Your task to perform on an android device: Go to network settings Image 0: 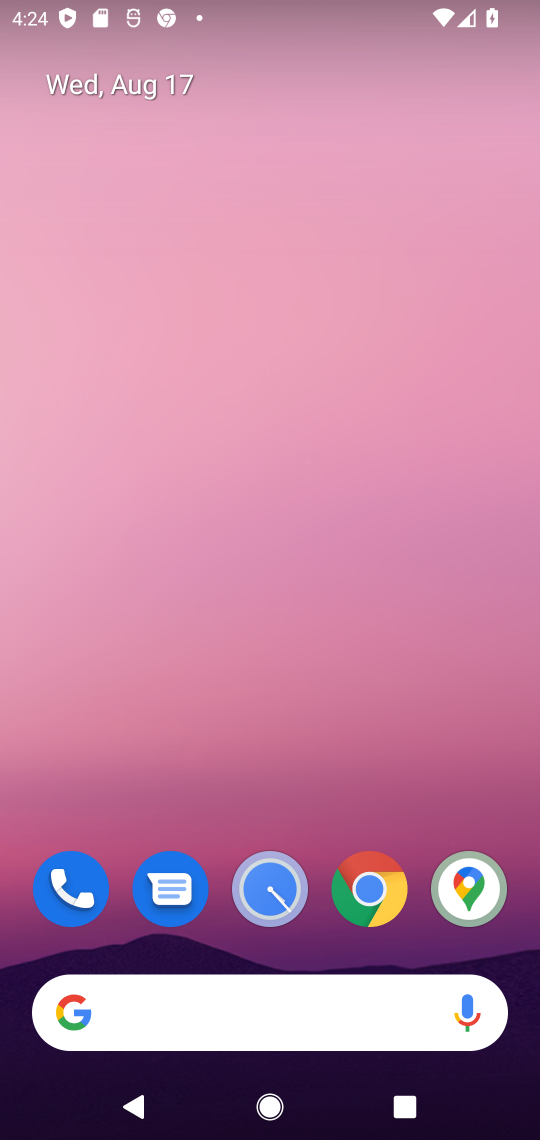
Step 0: drag from (311, 803) to (311, 100)
Your task to perform on an android device: Go to network settings Image 1: 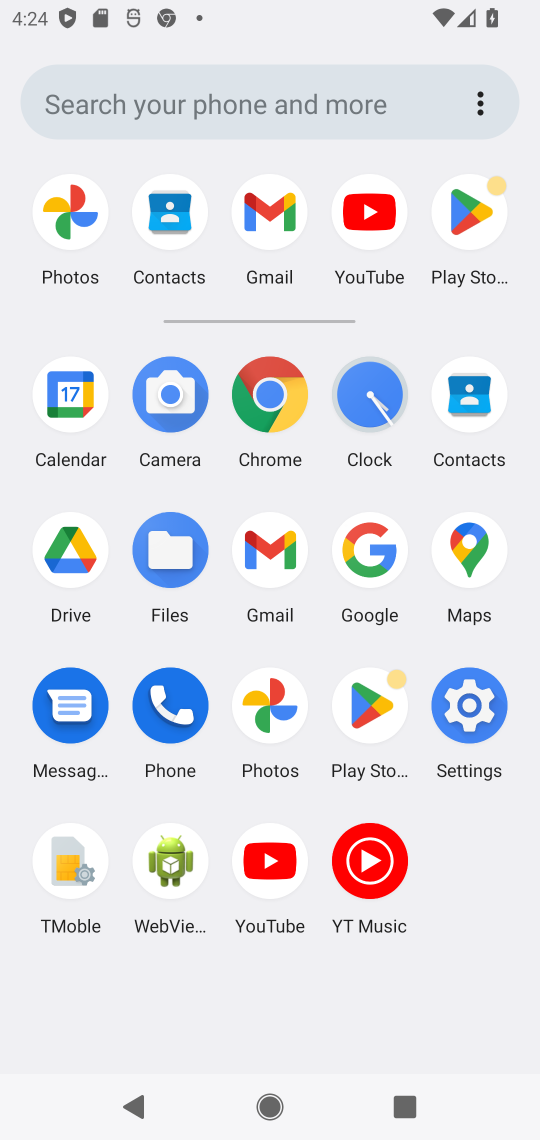
Step 1: click (483, 704)
Your task to perform on an android device: Go to network settings Image 2: 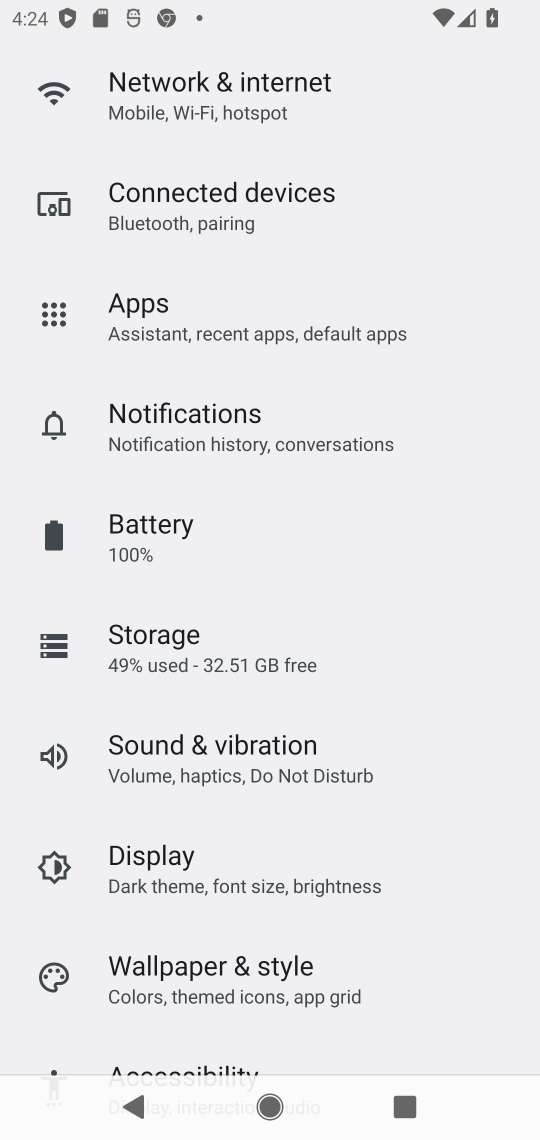
Step 2: click (179, 87)
Your task to perform on an android device: Go to network settings Image 3: 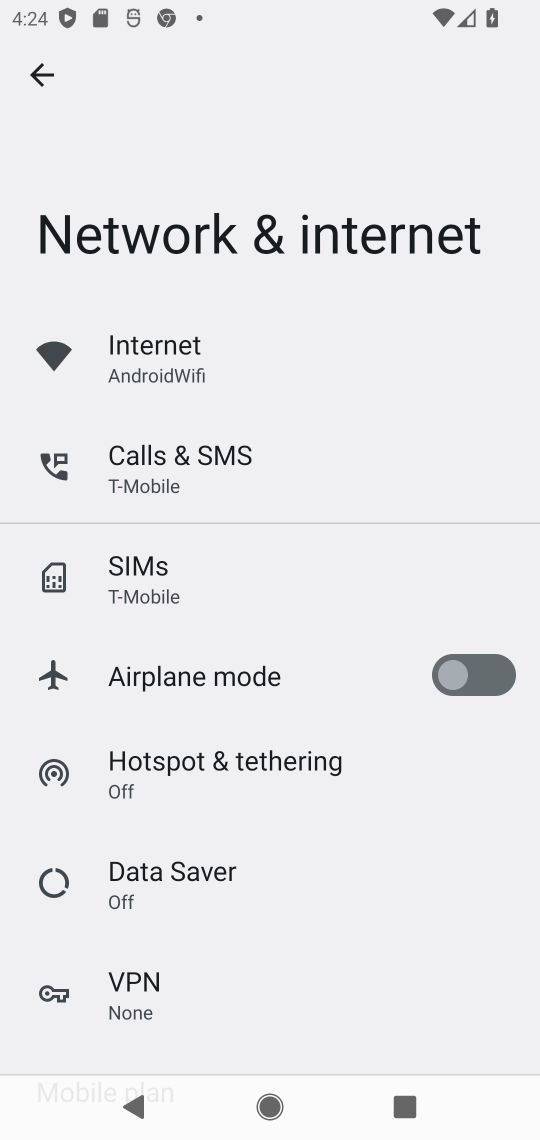
Step 3: task complete